Your task to perform on an android device: Open settings on Google Maps Image 0: 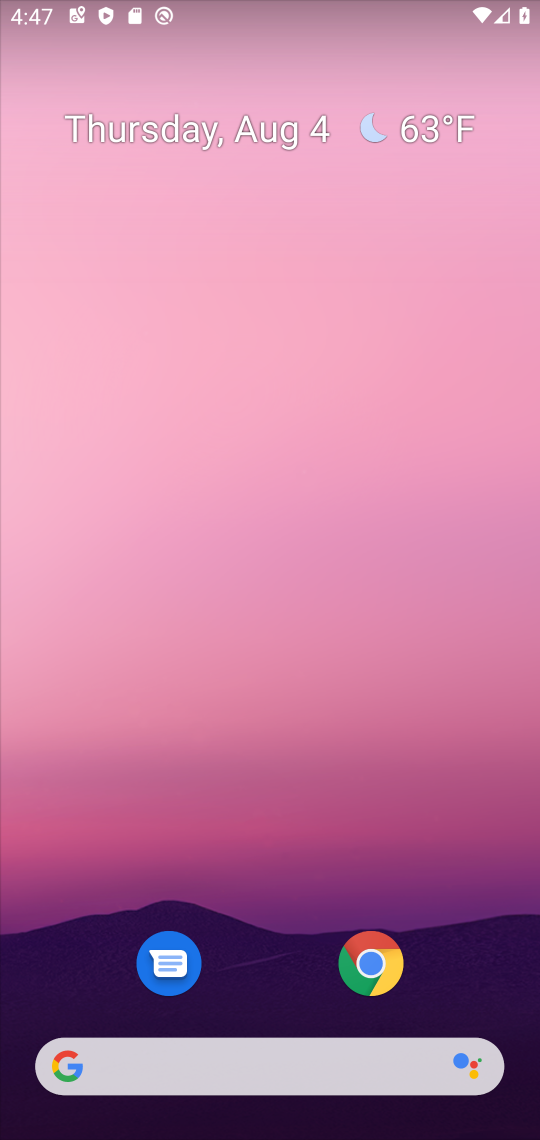
Step 0: click (228, 10)
Your task to perform on an android device: Open settings on Google Maps Image 1: 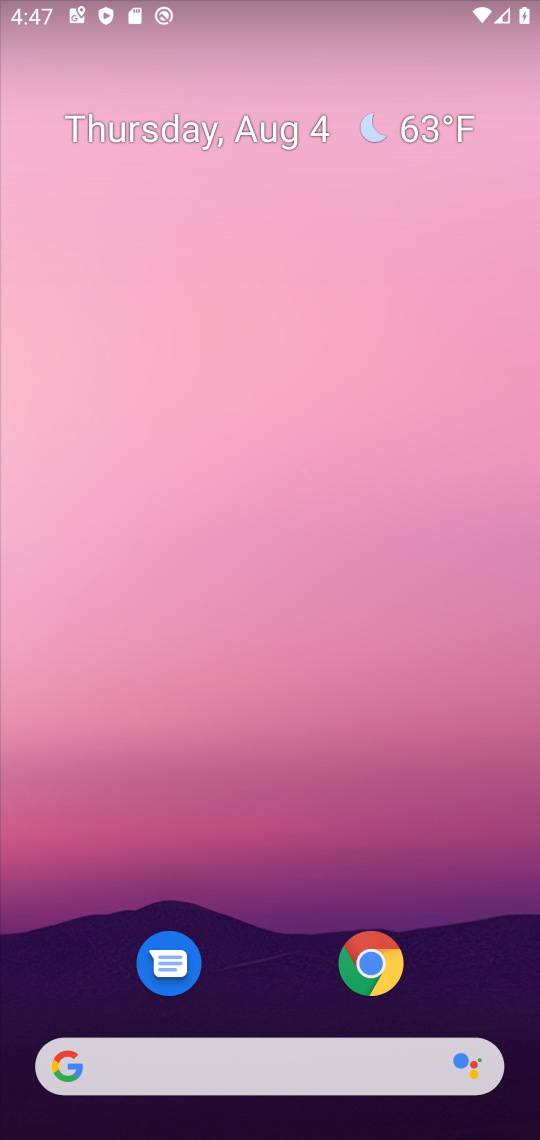
Step 1: drag from (269, 904) to (271, 141)
Your task to perform on an android device: Open settings on Google Maps Image 2: 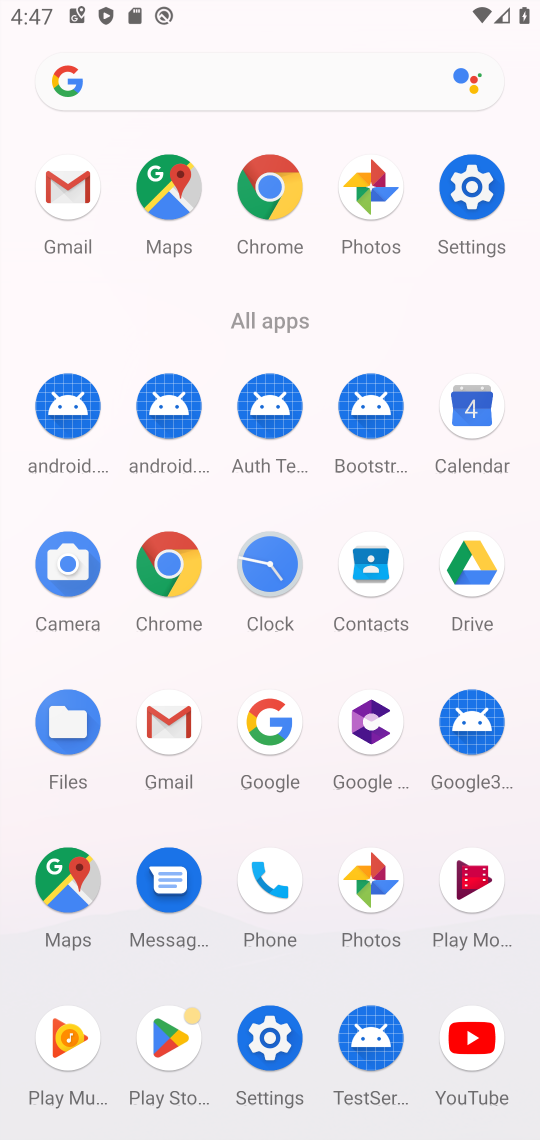
Step 2: click (160, 177)
Your task to perform on an android device: Open settings on Google Maps Image 3: 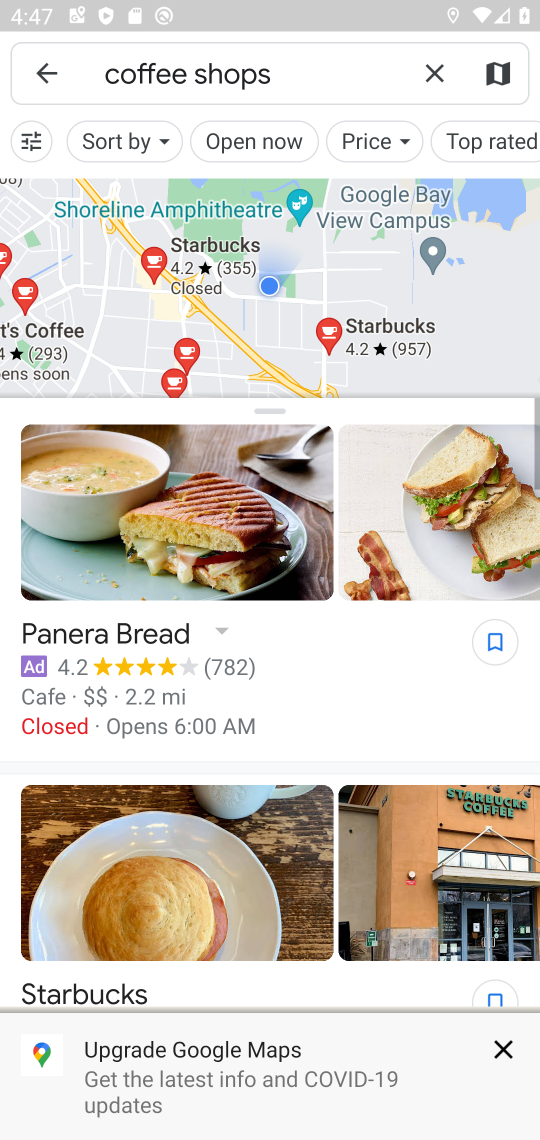
Step 3: click (41, 68)
Your task to perform on an android device: Open settings on Google Maps Image 4: 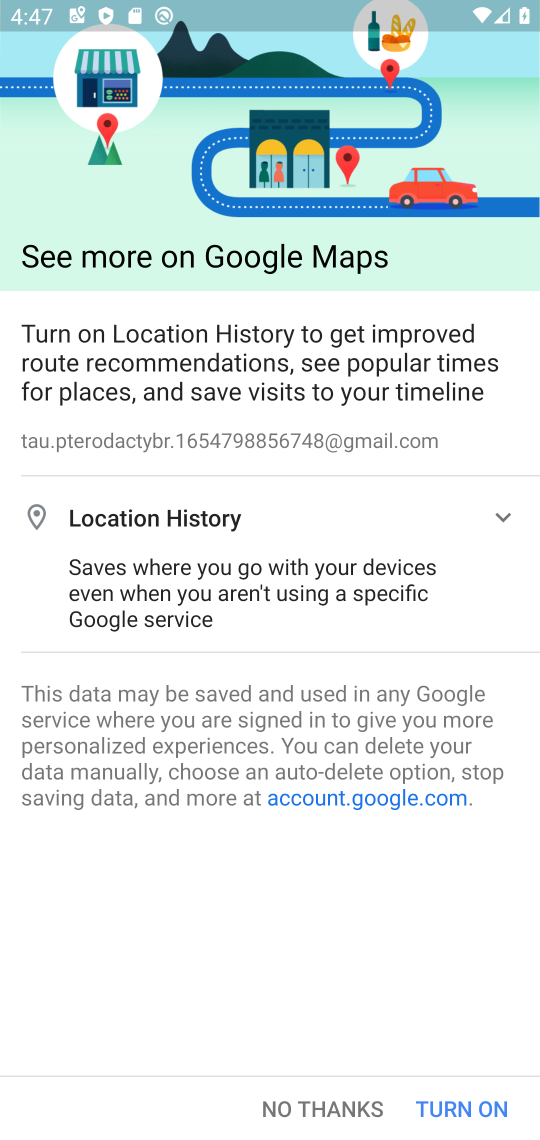
Step 4: click (423, 1110)
Your task to perform on an android device: Open settings on Google Maps Image 5: 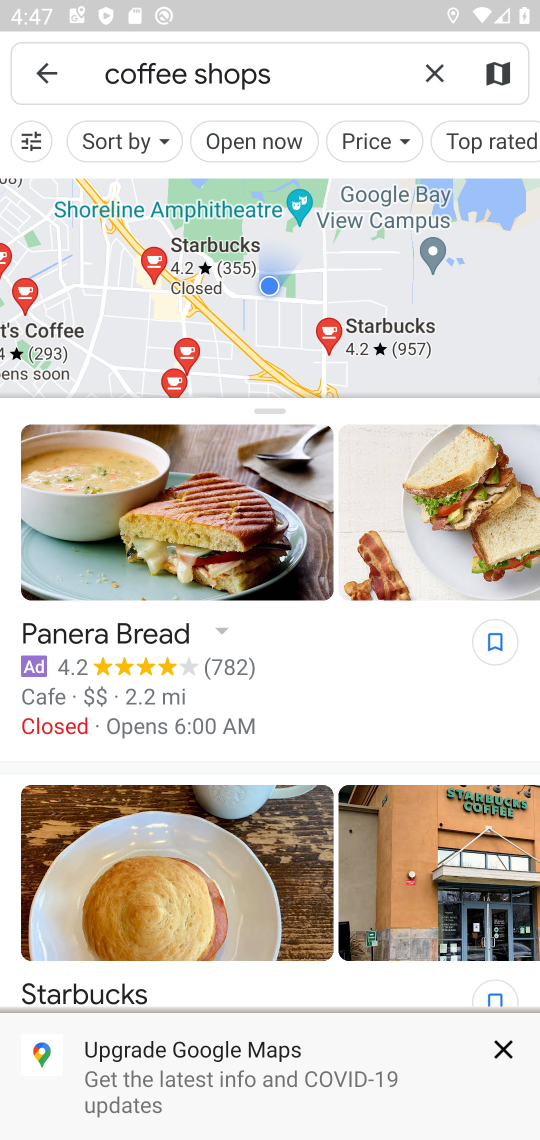
Step 5: click (35, 62)
Your task to perform on an android device: Open settings on Google Maps Image 6: 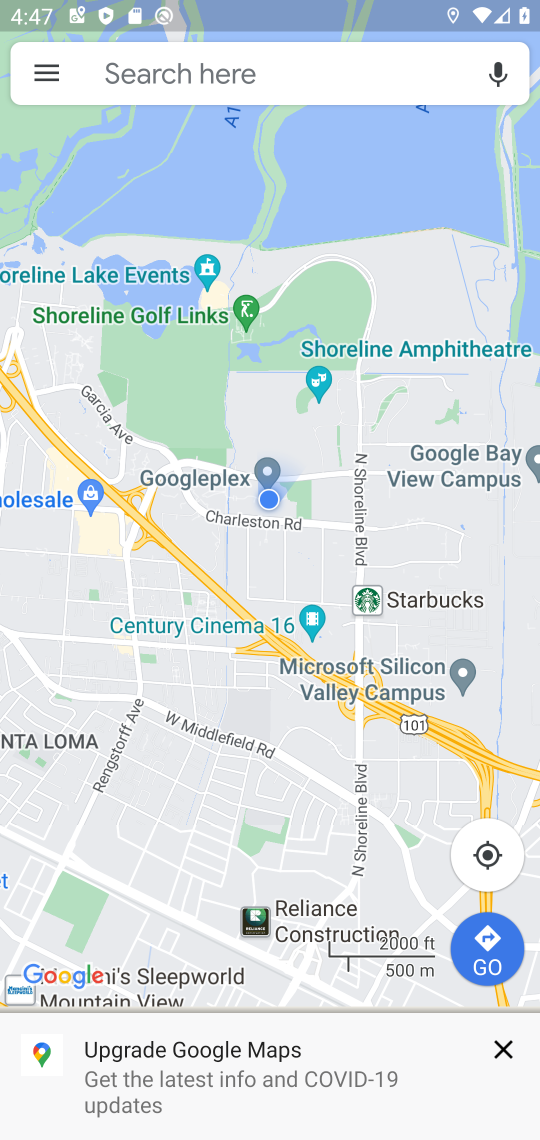
Step 6: click (40, 73)
Your task to perform on an android device: Open settings on Google Maps Image 7: 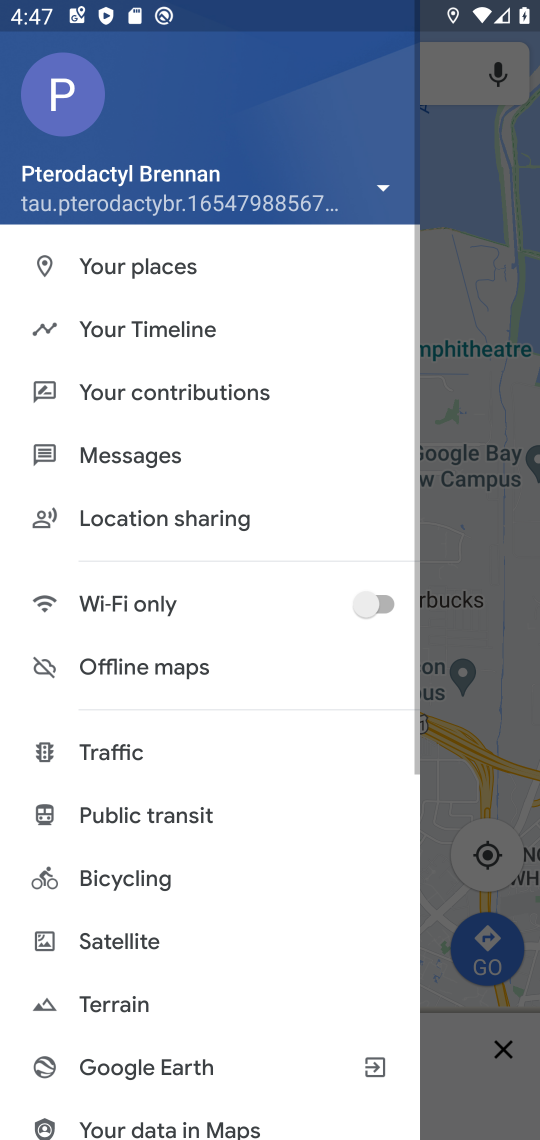
Step 7: drag from (205, 967) to (189, 252)
Your task to perform on an android device: Open settings on Google Maps Image 8: 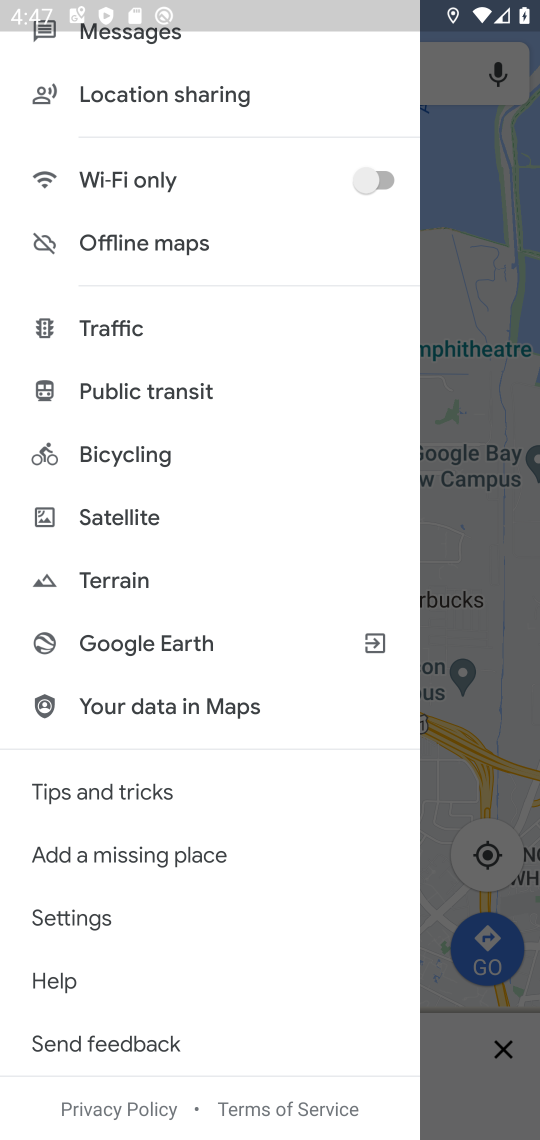
Step 8: click (85, 913)
Your task to perform on an android device: Open settings on Google Maps Image 9: 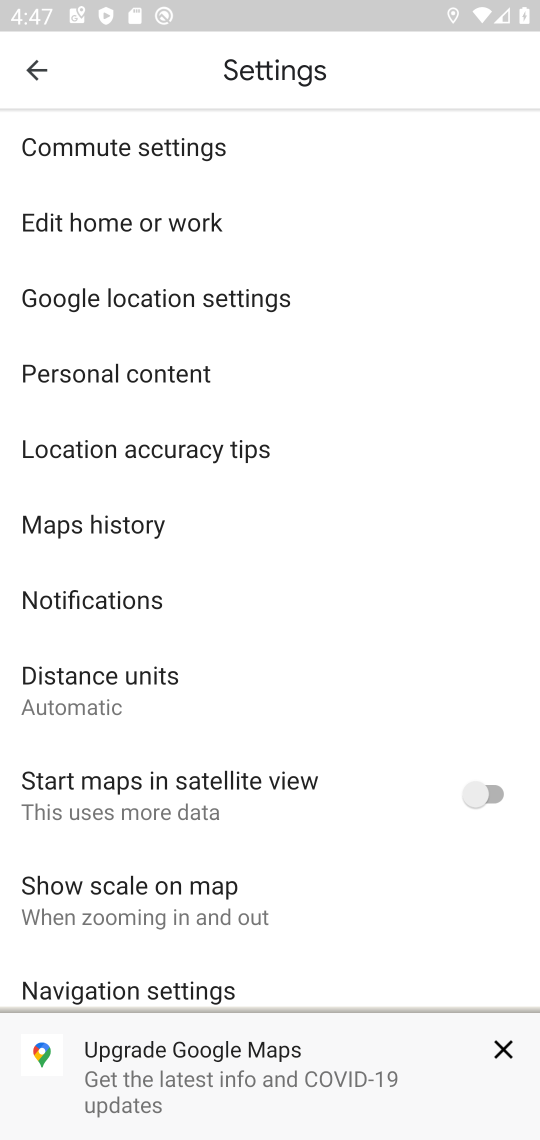
Step 9: task complete